Your task to perform on an android device: delete a single message in the gmail app Image 0: 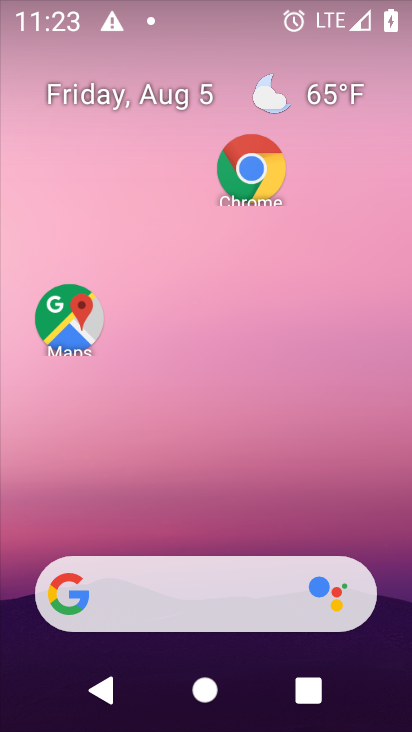
Step 0: drag from (193, 370) to (193, 120)
Your task to perform on an android device: delete a single message in the gmail app Image 1: 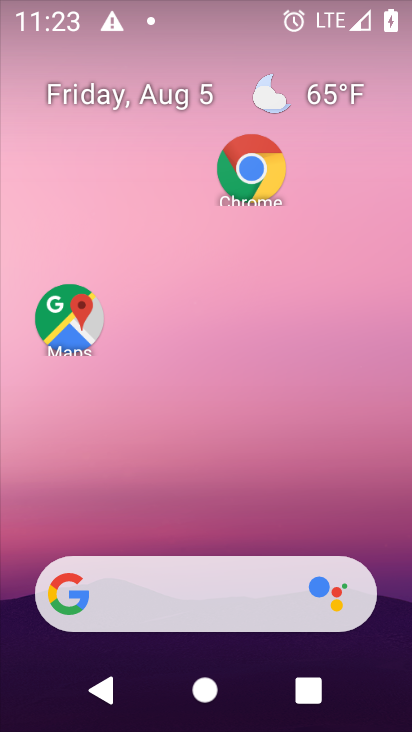
Step 1: drag from (191, 516) to (192, 85)
Your task to perform on an android device: delete a single message in the gmail app Image 2: 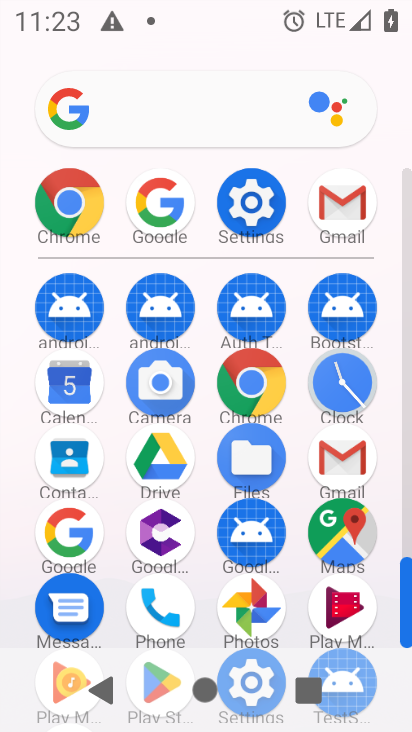
Step 2: click (325, 202)
Your task to perform on an android device: delete a single message in the gmail app Image 3: 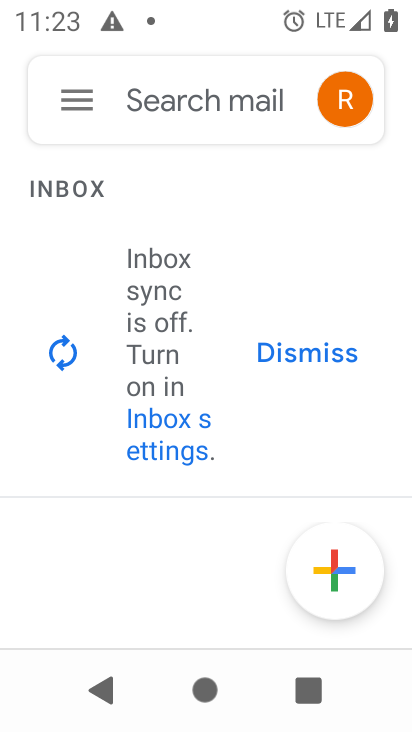
Step 3: click (84, 99)
Your task to perform on an android device: delete a single message in the gmail app Image 4: 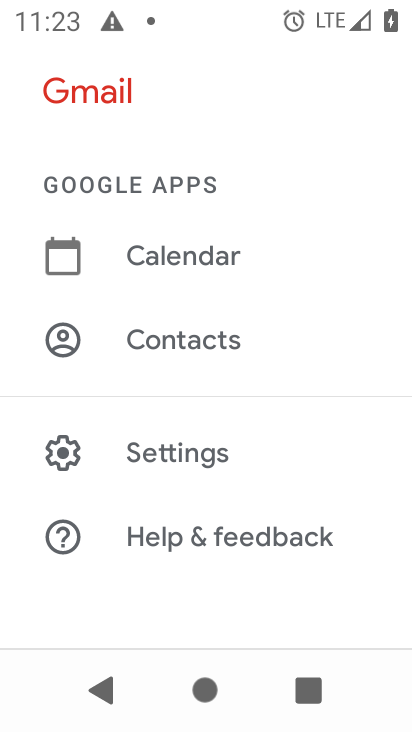
Step 4: task complete